Your task to perform on an android device: Open the stopwatch Image 0: 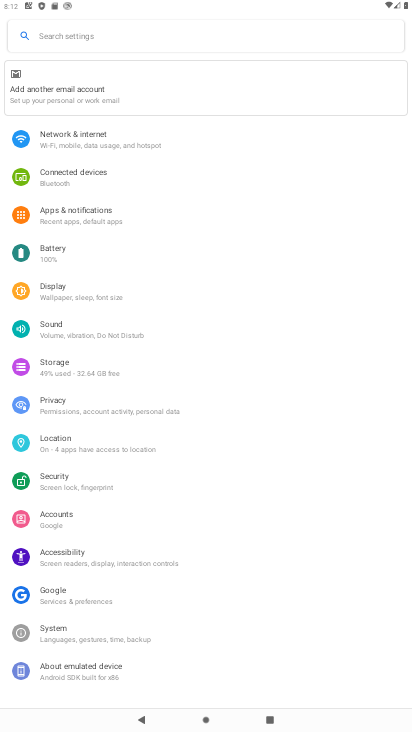
Step 0: press home button
Your task to perform on an android device: Open the stopwatch Image 1: 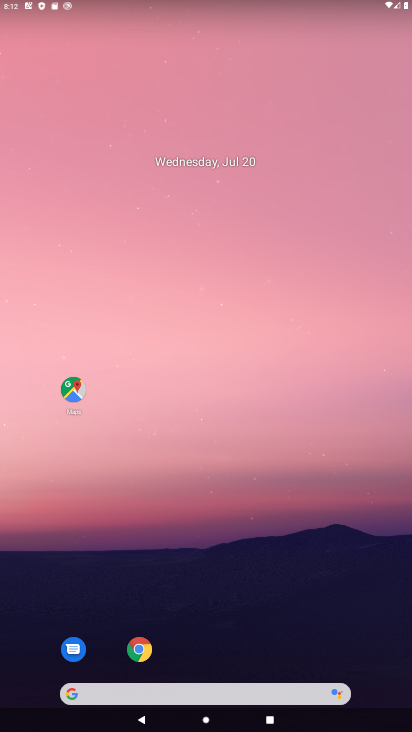
Step 1: drag from (191, 689) to (255, 169)
Your task to perform on an android device: Open the stopwatch Image 2: 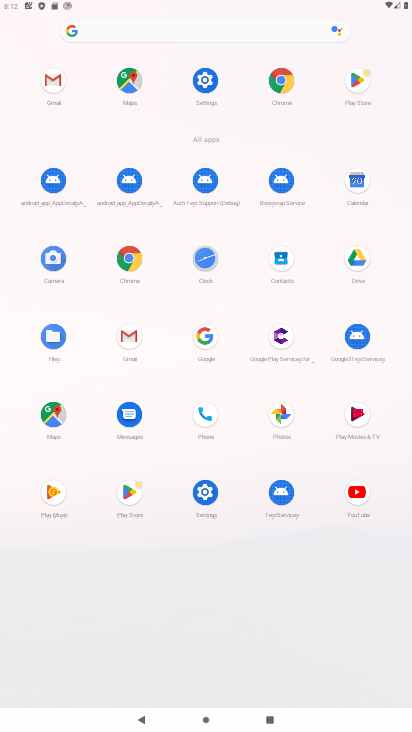
Step 2: click (205, 260)
Your task to perform on an android device: Open the stopwatch Image 3: 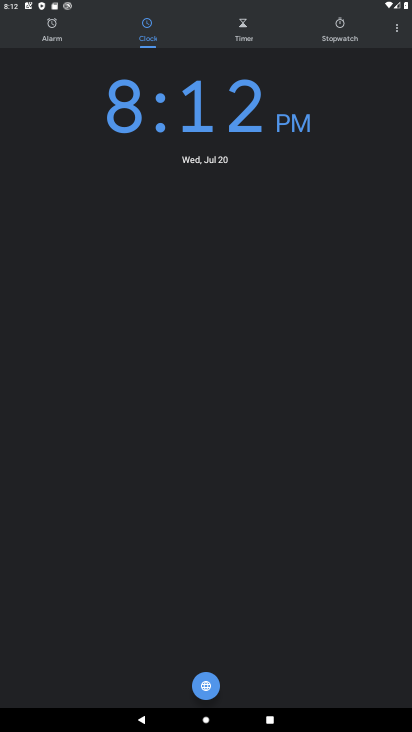
Step 3: click (339, 28)
Your task to perform on an android device: Open the stopwatch Image 4: 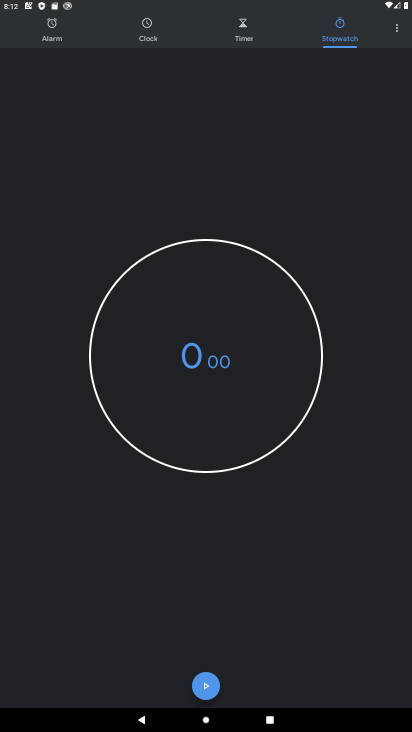
Step 4: task complete